Your task to perform on an android device: What's the weather going to be tomorrow? Image 0: 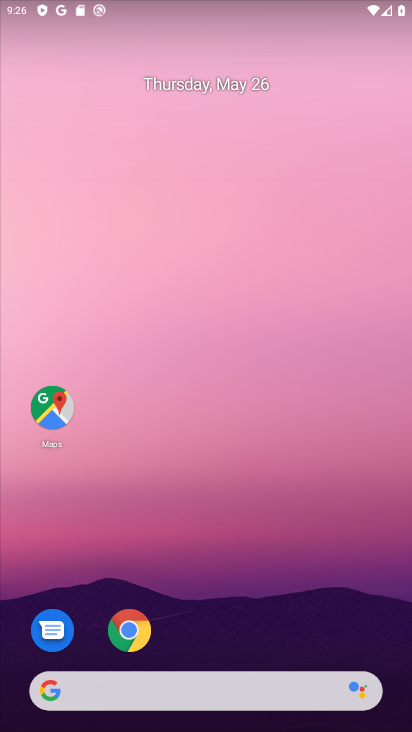
Step 0: click (210, 688)
Your task to perform on an android device: What's the weather going to be tomorrow? Image 1: 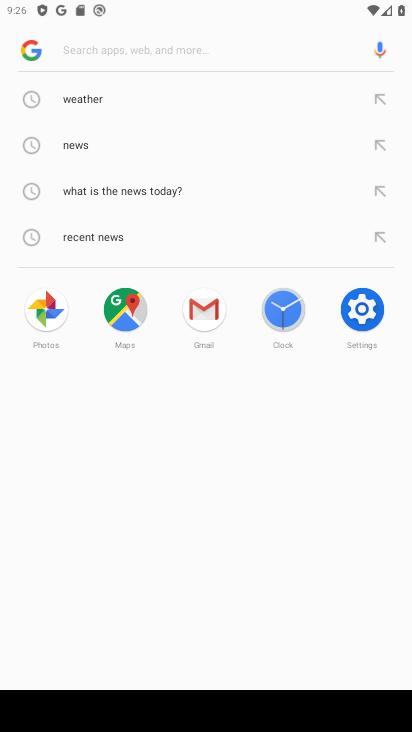
Step 1: click (86, 93)
Your task to perform on an android device: What's the weather going to be tomorrow? Image 2: 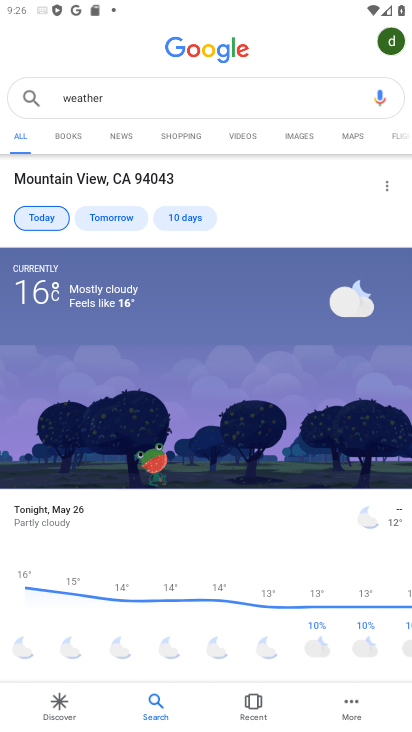
Step 2: click (102, 206)
Your task to perform on an android device: What's the weather going to be tomorrow? Image 3: 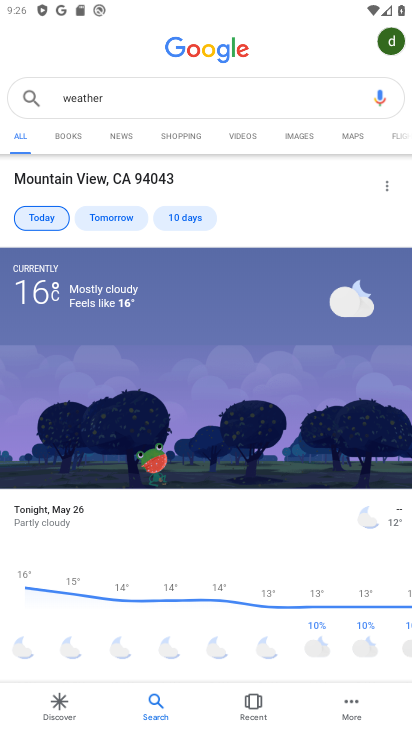
Step 3: click (112, 214)
Your task to perform on an android device: What's the weather going to be tomorrow? Image 4: 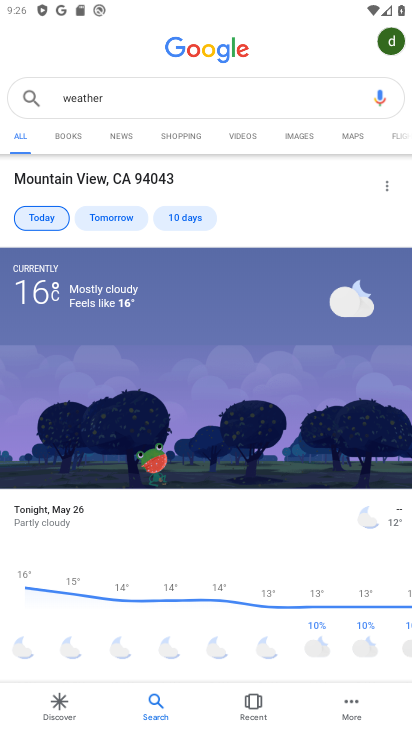
Step 4: click (112, 214)
Your task to perform on an android device: What's the weather going to be tomorrow? Image 5: 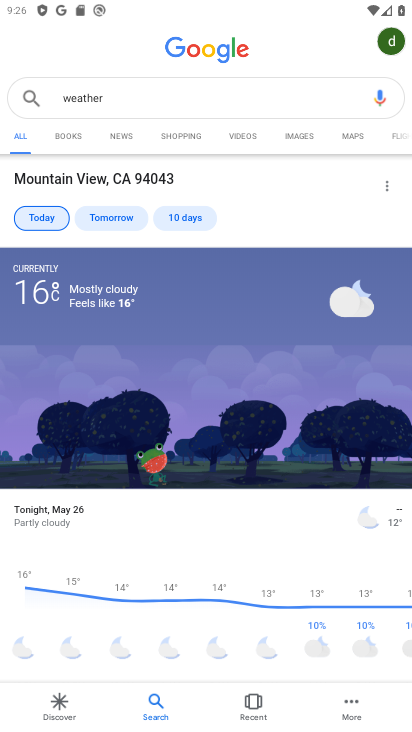
Step 5: click (112, 214)
Your task to perform on an android device: What's the weather going to be tomorrow? Image 6: 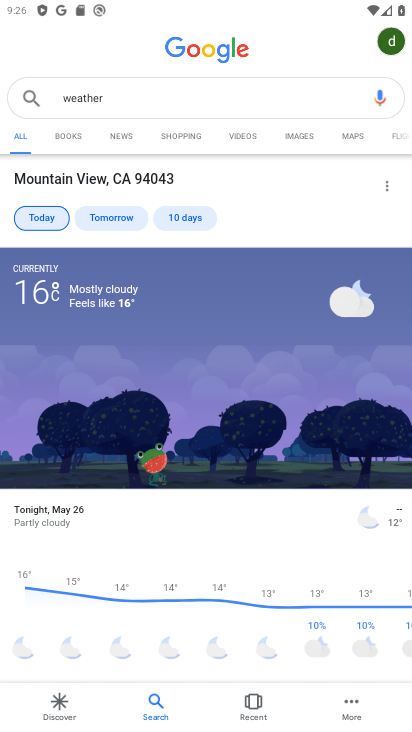
Step 6: click (112, 214)
Your task to perform on an android device: What's the weather going to be tomorrow? Image 7: 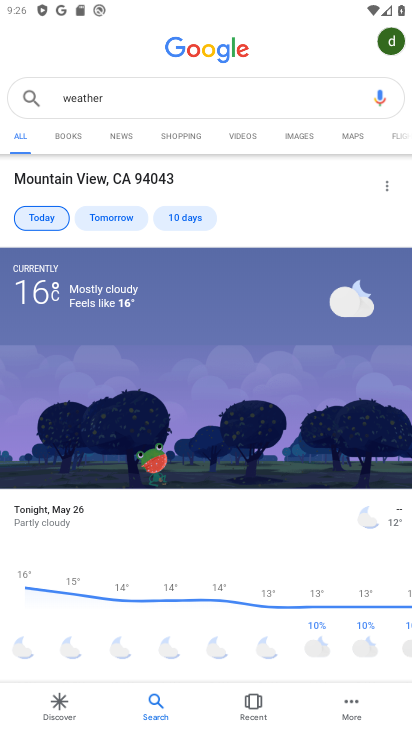
Step 7: click (112, 214)
Your task to perform on an android device: What's the weather going to be tomorrow? Image 8: 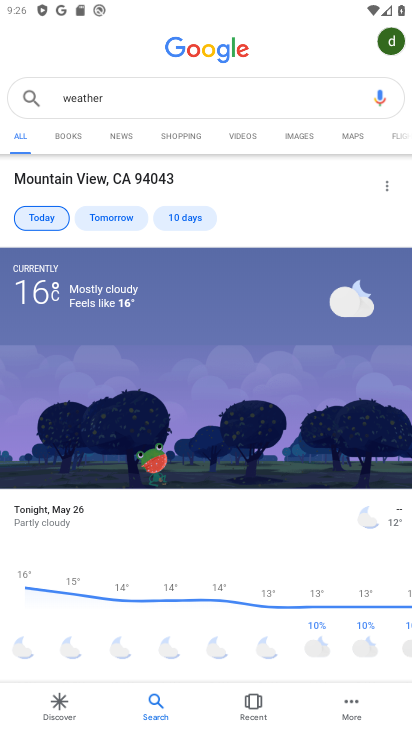
Step 8: click (112, 214)
Your task to perform on an android device: What's the weather going to be tomorrow? Image 9: 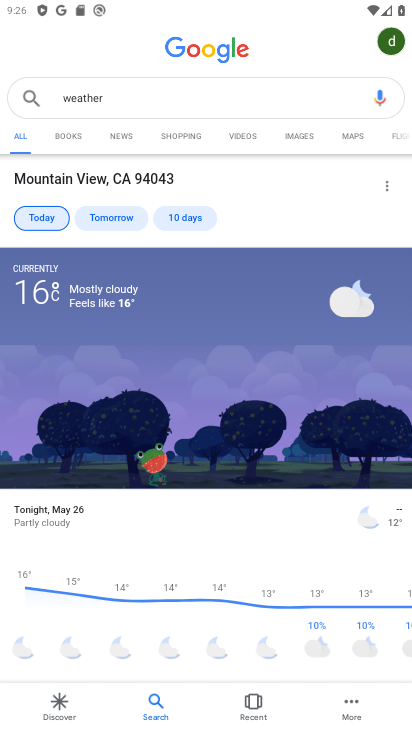
Step 9: click (112, 214)
Your task to perform on an android device: What's the weather going to be tomorrow? Image 10: 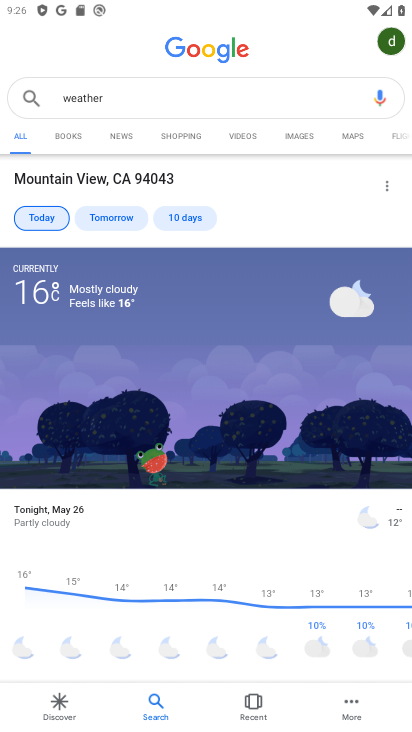
Step 10: click (170, 212)
Your task to perform on an android device: What's the weather going to be tomorrow? Image 11: 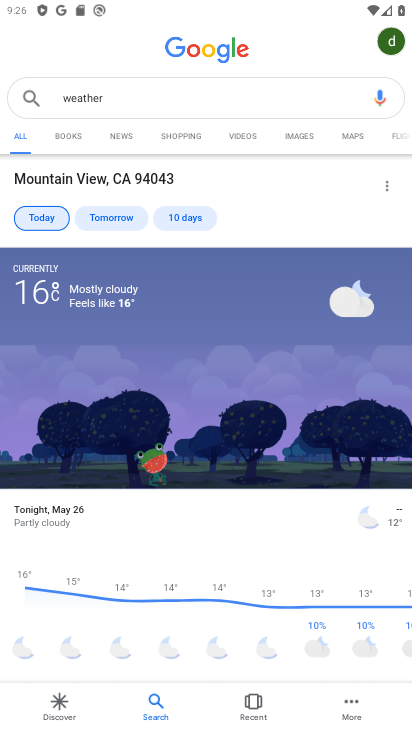
Step 11: task complete